Your task to perform on an android device: see tabs open on other devices in the chrome app Image 0: 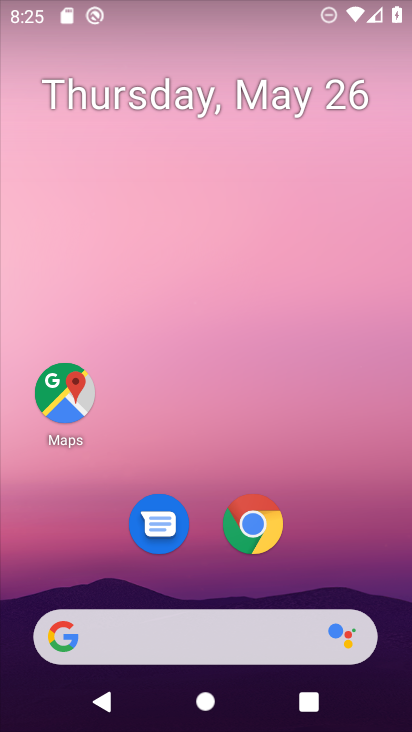
Step 0: click (260, 526)
Your task to perform on an android device: see tabs open on other devices in the chrome app Image 1: 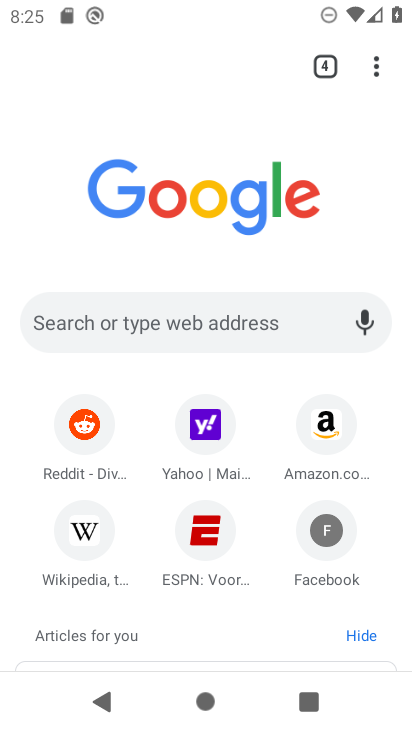
Step 1: click (378, 73)
Your task to perform on an android device: see tabs open on other devices in the chrome app Image 2: 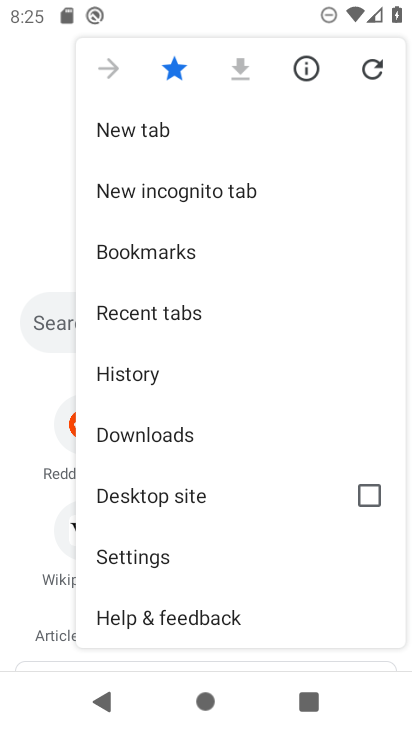
Step 2: click (158, 309)
Your task to perform on an android device: see tabs open on other devices in the chrome app Image 3: 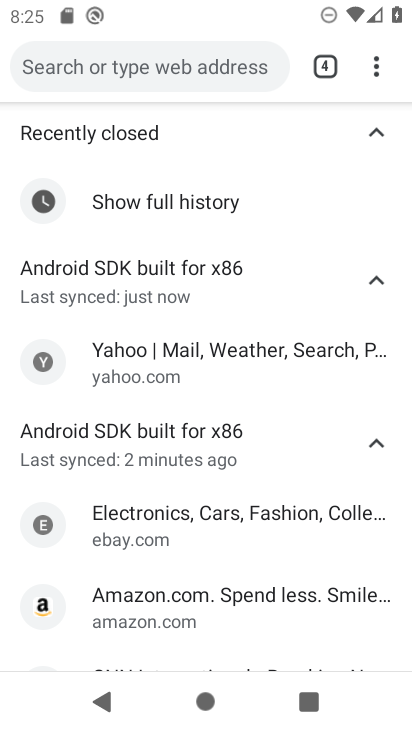
Step 3: task complete